Your task to perform on an android device: turn on sleep mode Image 0: 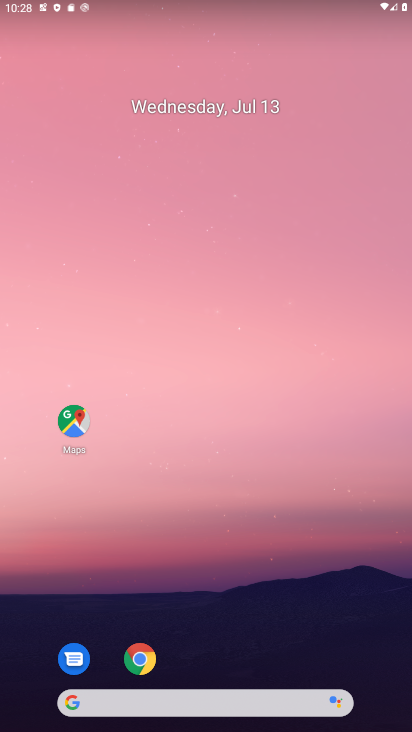
Step 0: click (210, 259)
Your task to perform on an android device: turn on sleep mode Image 1: 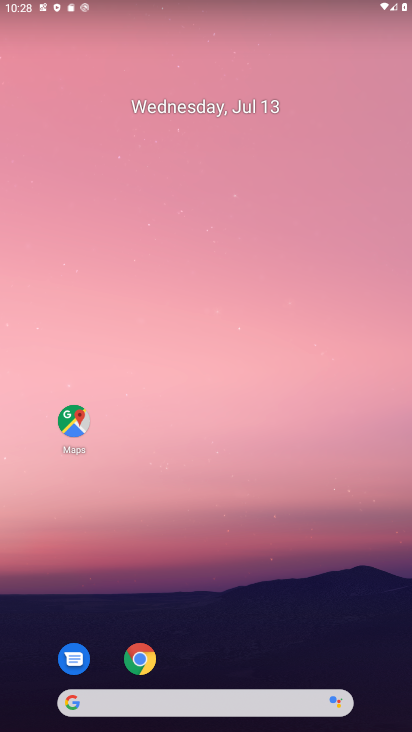
Step 1: drag from (207, 681) to (162, 94)
Your task to perform on an android device: turn on sleep mode Image 2: 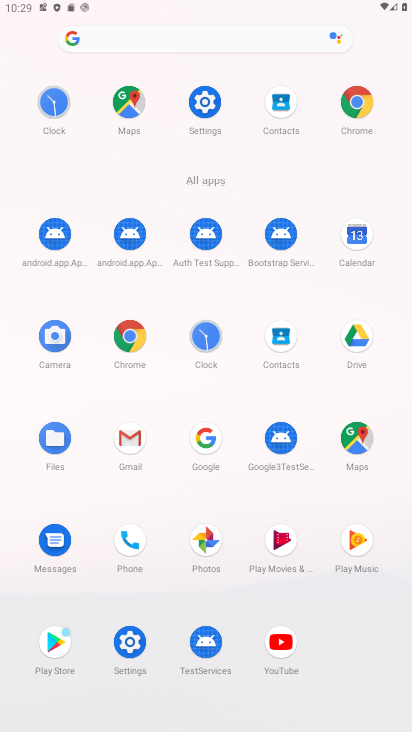
Step 2: click (209, 111)
Your task to perform on an android device: turn on sleep mode Image 3: 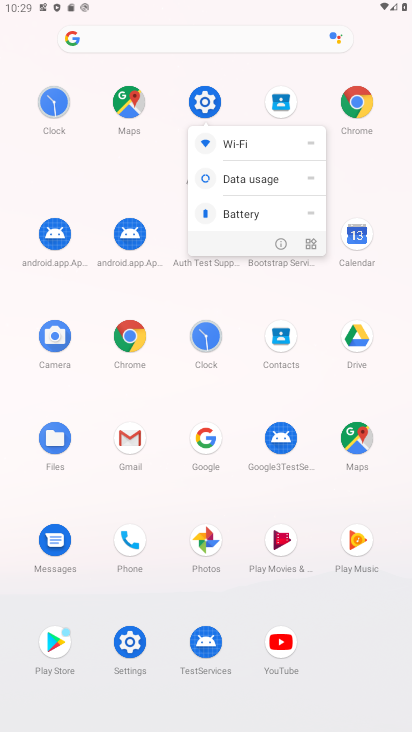
Step 3: click (201, 101)
Your task to perform on an android device: turn on sleep mode Image 4: 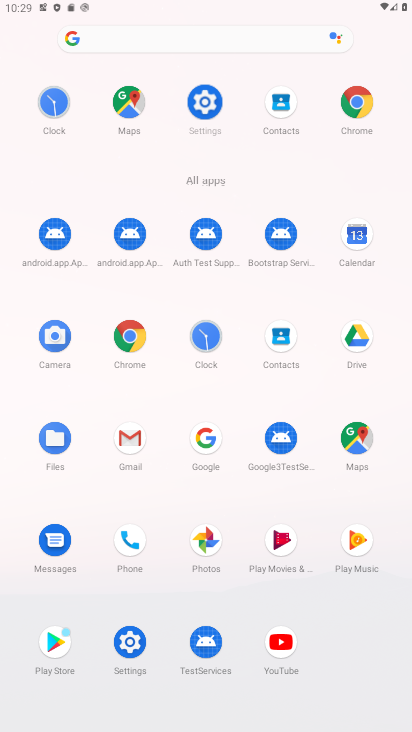
Step 4: click (201, 101)
Your task to perform on an android device: turn on sleep mode Image 5: 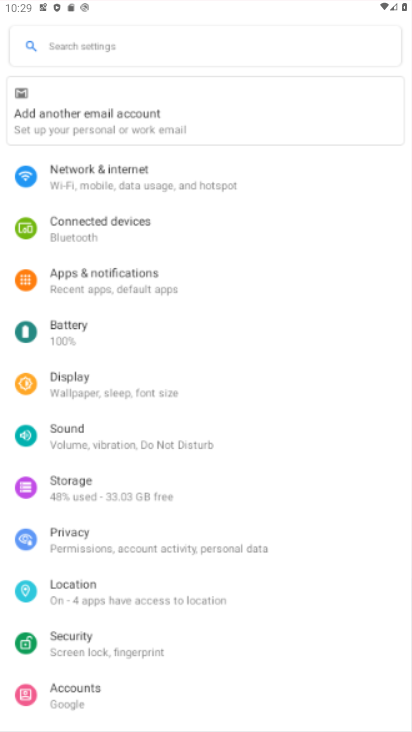
Step 5: click (201, 101)
Your task to perform on an android device: turn on sleep mode Image 6: 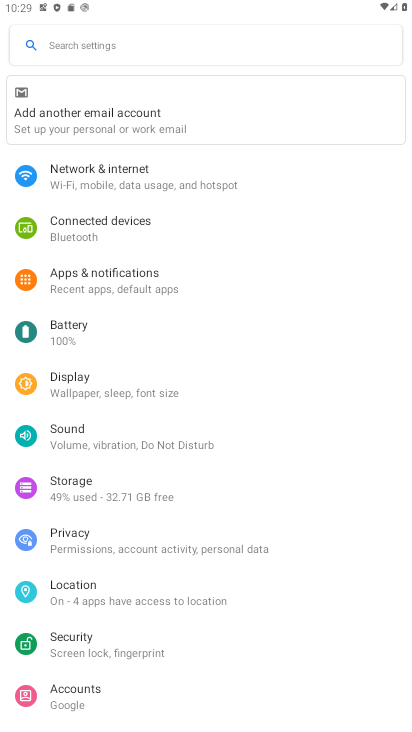
Step 6: click (72, 386)
Your task to perform on an android device: turn on sleep mode Image 7: 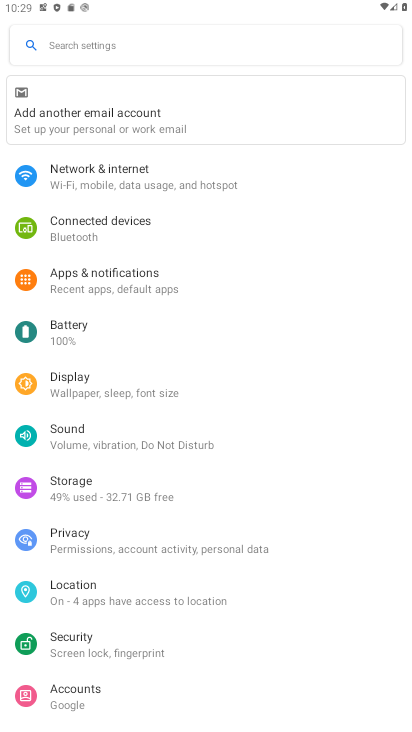
Step 7: click (72, 386)
Your task to perform on an android device: turn on sleep mode Image 8: 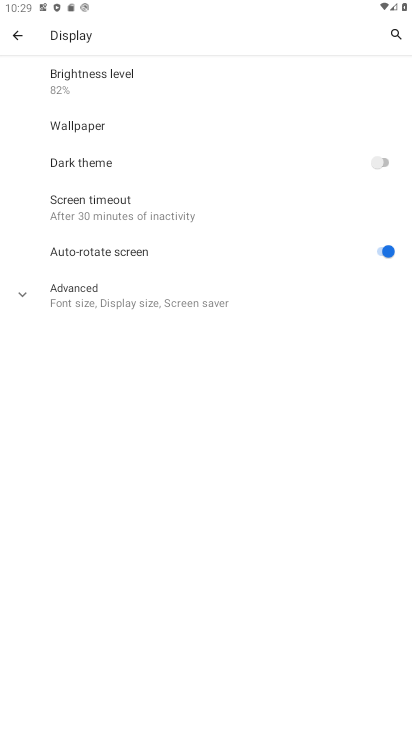
Step 8: click (88, 211)
Your task to perform on an android device: turn on sleep mode Image 9: 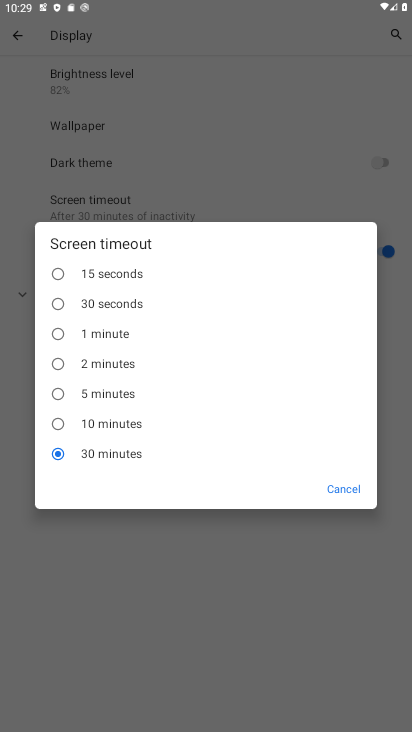
Step 9: task complete